Your task to perform on an android device: Go to Google maps Image 0: 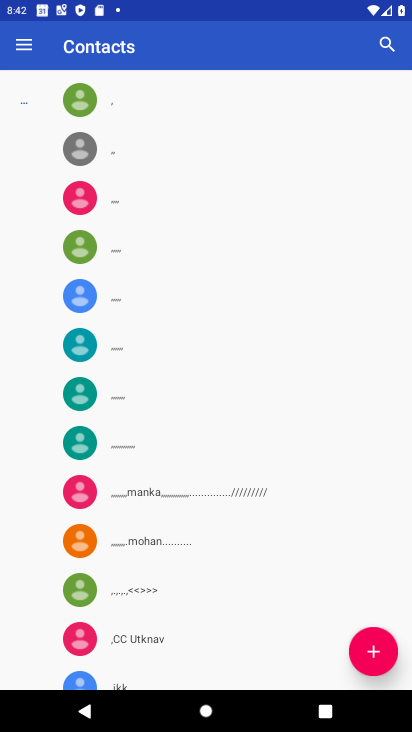
Step 0: press home button
Your task to perform on an android device: Go to Google maps Image 1: 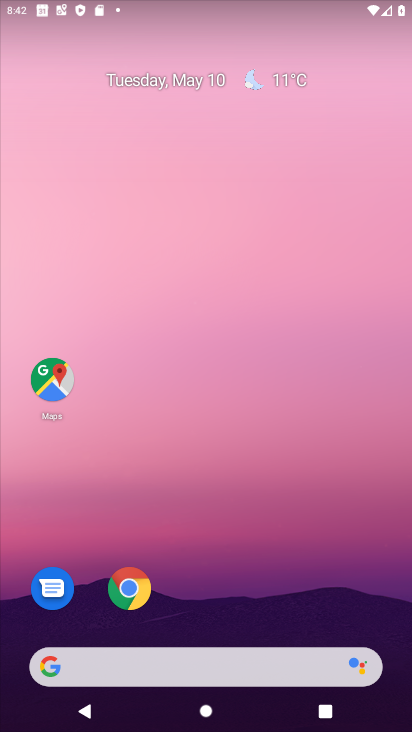
Step 1: click (47, 370)
Your task to perform on an android device: Go to Google maps Image 2: 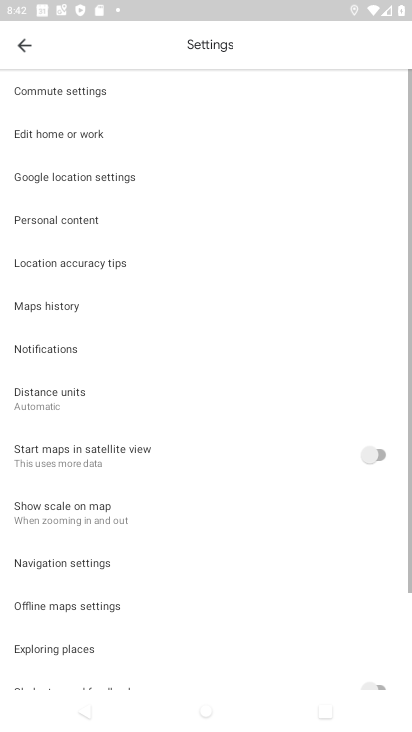
Step 2: click (35, 43)
Your task to perform on an android device: Go to Google maps Image 3: 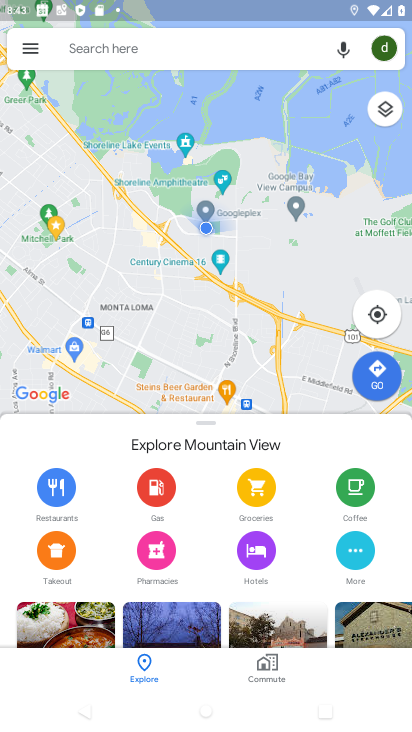
Step 3: task complete